Your task to perform on an android device: Go to Google maps Image 0: 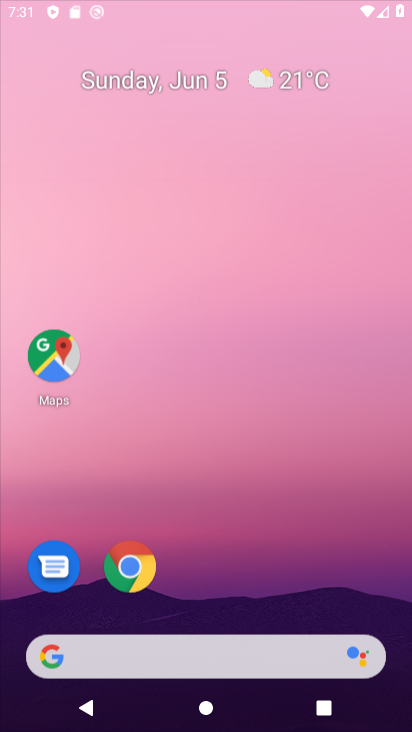
Step 0: drag from (229, 443) to (237, 295)
Your task to perform on an android device: Go to Google maps Image 1: 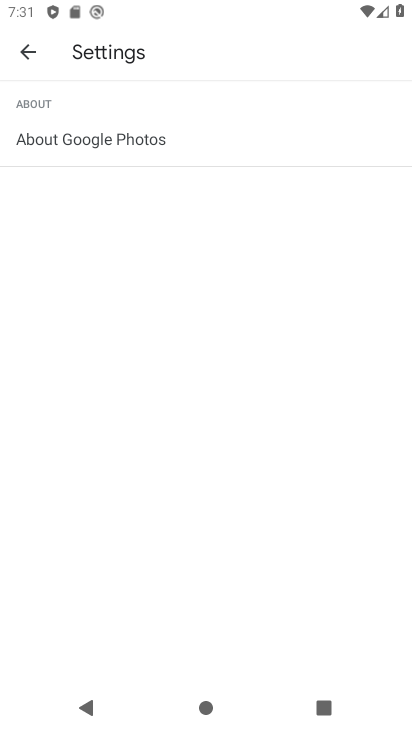
Step 1: press home button
Your task to perform on an android device: Go to Google maps Image 2: 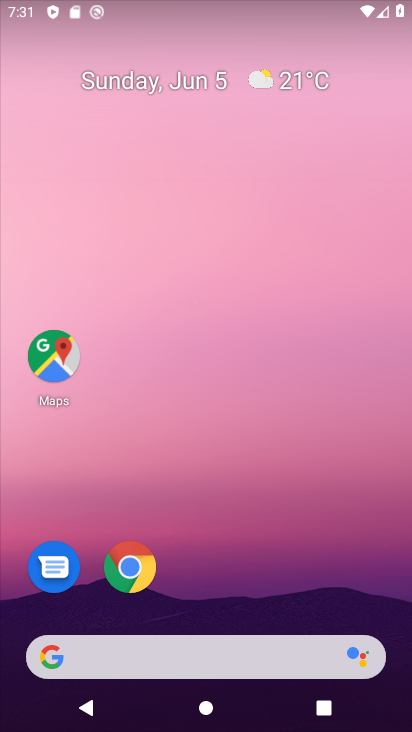
Step 2: click (42, 355)
Your task to perform on an android device: Go to Google maps Image 3: 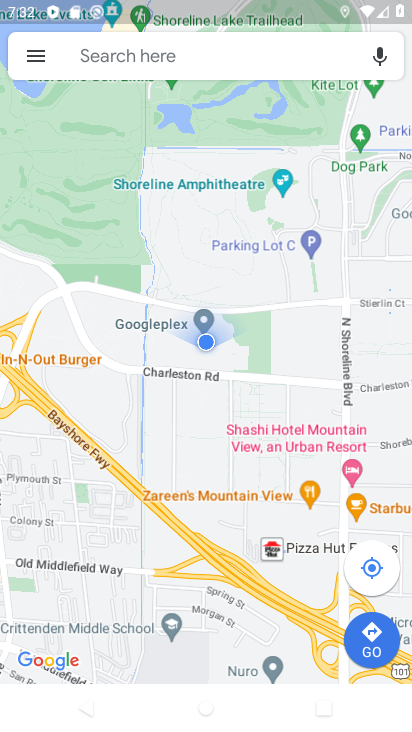
Step 3: task complete